Your task to perform on an android device: turn on wifi Image 0: 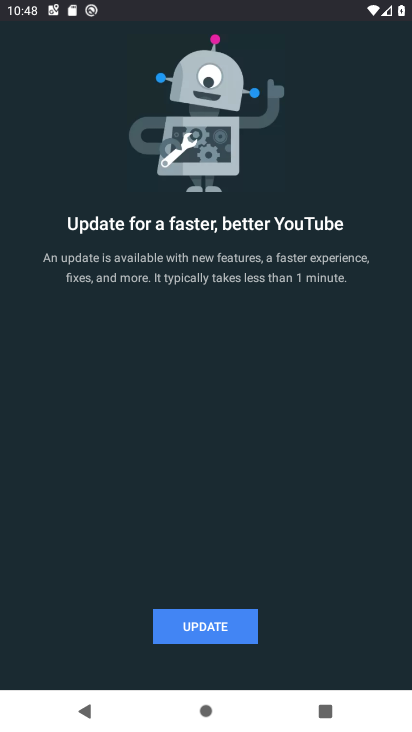
Step 0: press home button
Your task to perform on an android device: turn on wifi Image 1: 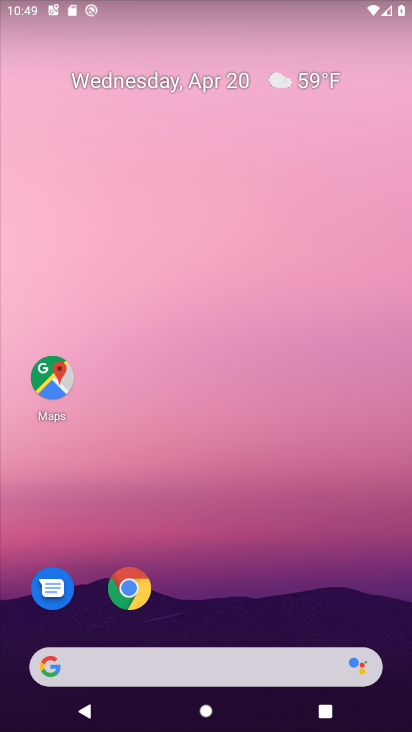
Step 1: drag from (262, 328) to (197, 17)
Your task to perform on an android device: turn on wifi Image 2: 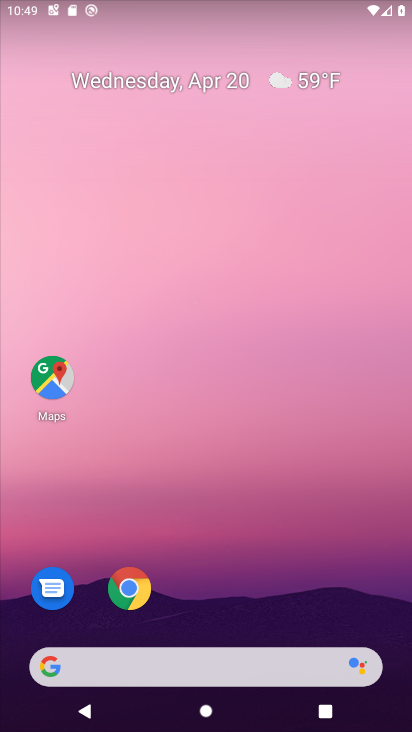
Step 2: drag from (199, 553) to (214, 8)
Your task to perform on an android device: turn on wifi Image 3: 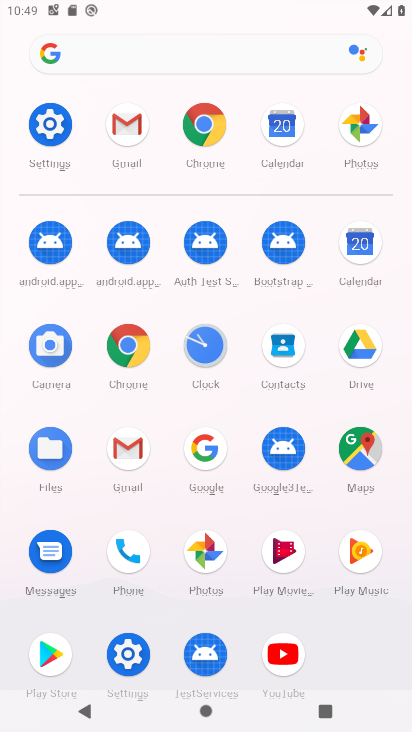
Step 3: click (54, 125)
Your task to perform on an android device: turn on wifi Image 4: 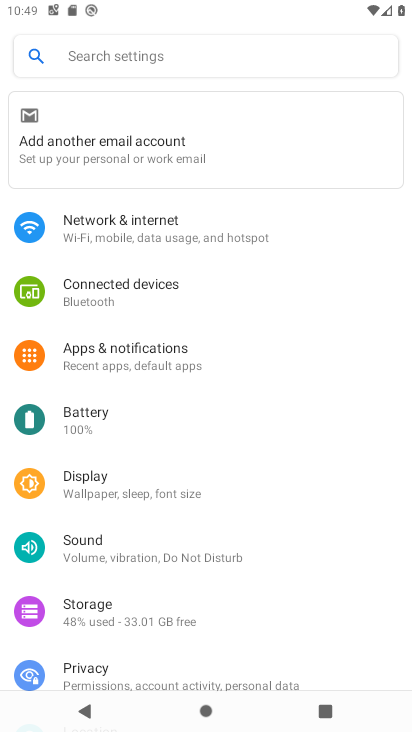
Step 4: click (117, 228)
Your task to perform on an android device: turn on wifi Image 5: 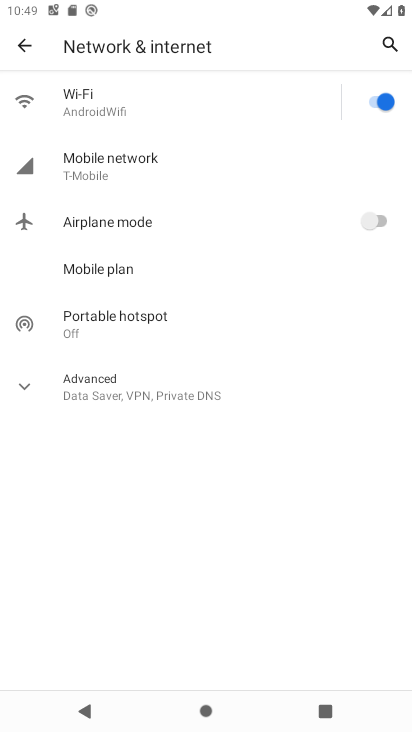
Step 5: task complete